Your task to perform on an android device: Toggle the flashlight Image 0: 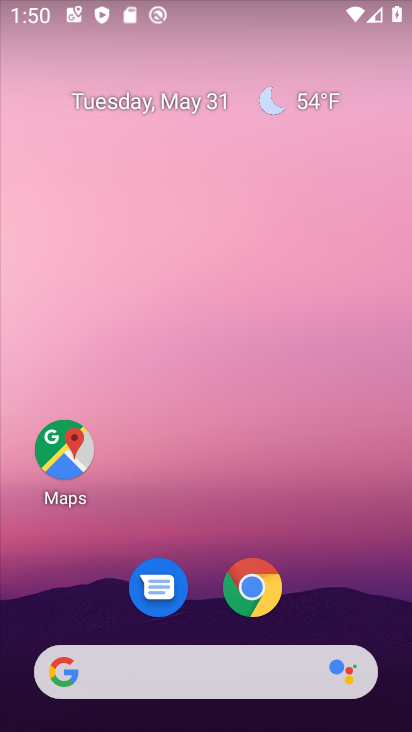
Step 0: click (158, 34)
Your task to perform on an android device: Toggle the flashlight Image 1: 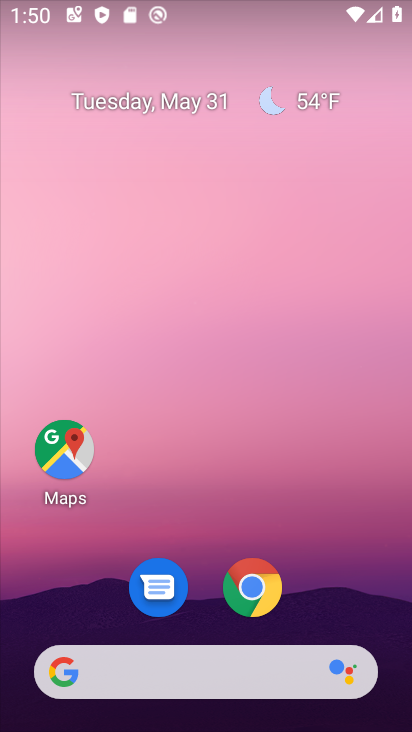
Step 1: drag from (203, 611) to (193, 135)
Your task to perform on an android device: Toggle the flashlight Image 2: 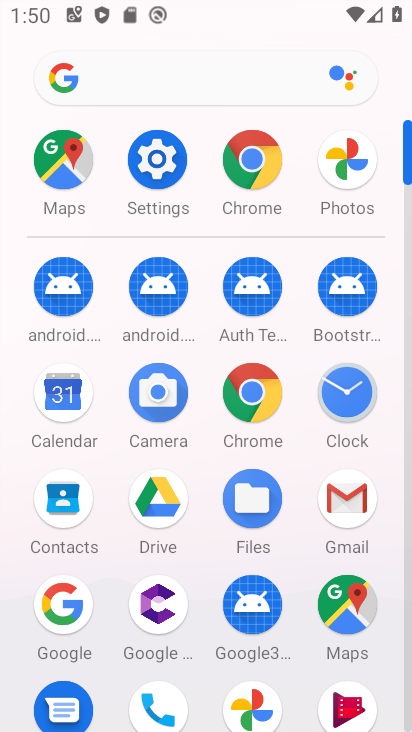
Step 2: click (140, 137)
Your task to perform on an android device: Toggle the flashlight Image 3: 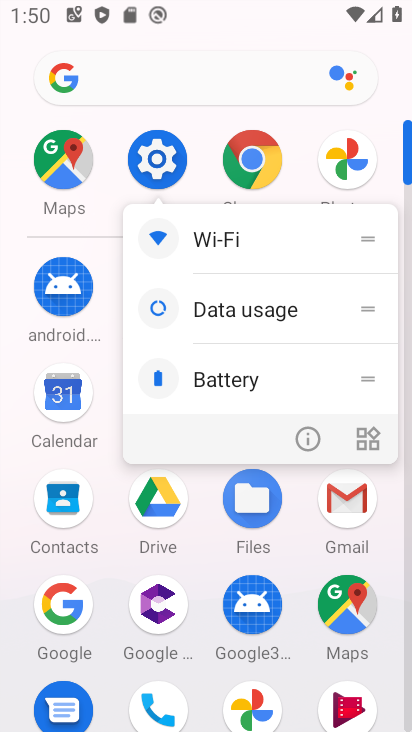
Step 3: click (319, 426)
Your task to perform on an android device: Toggle the flashlight Image 4: 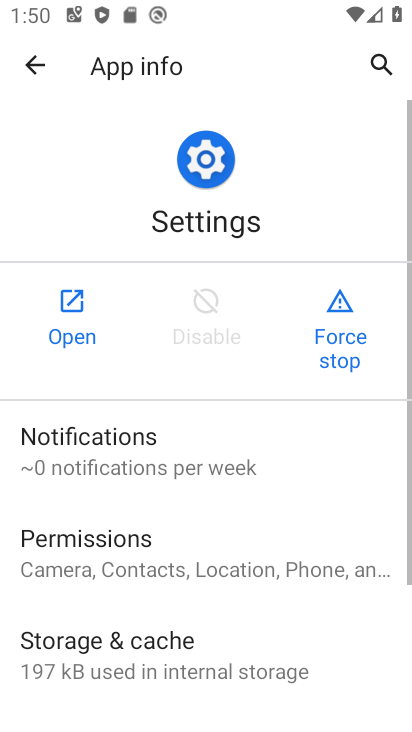
Step 4: click (60, 329)
Your task to perform on an android device: Toggle the flashlight Image 5: 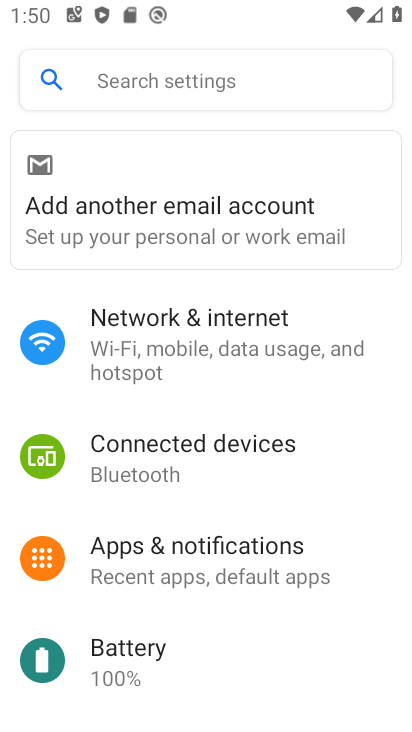
Step 5: click (188, 85)
Your task to perform on an android device: Toggle the flashlight Image 6: 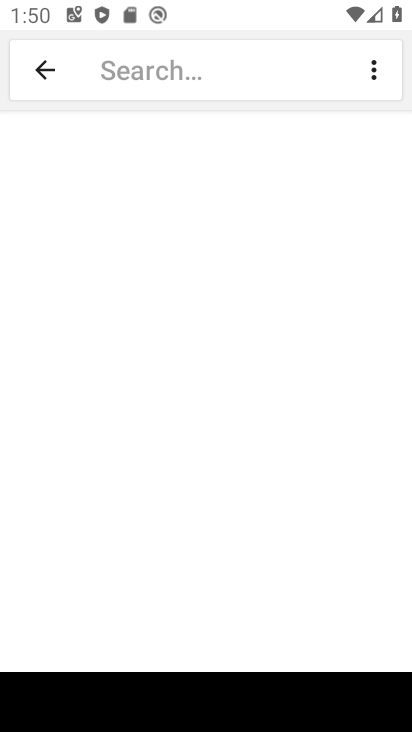
Step 6: click (117, 64)
Your task to perform on an android device: Toggle the flashlight Image 7: 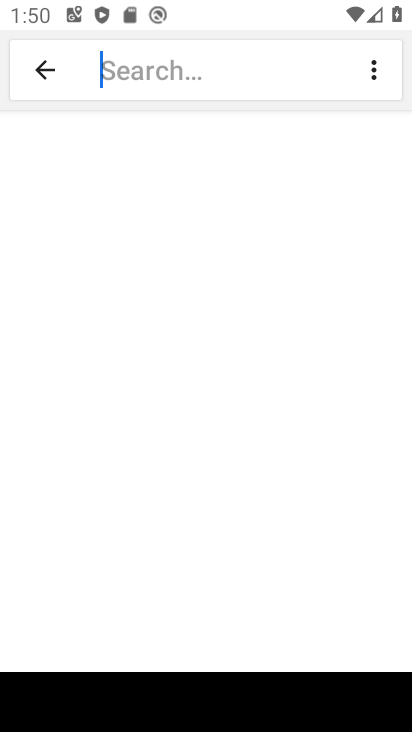
Step 7: click (93, 66)
Your task to perform on an android device: Toggle the flashlight Image 8: 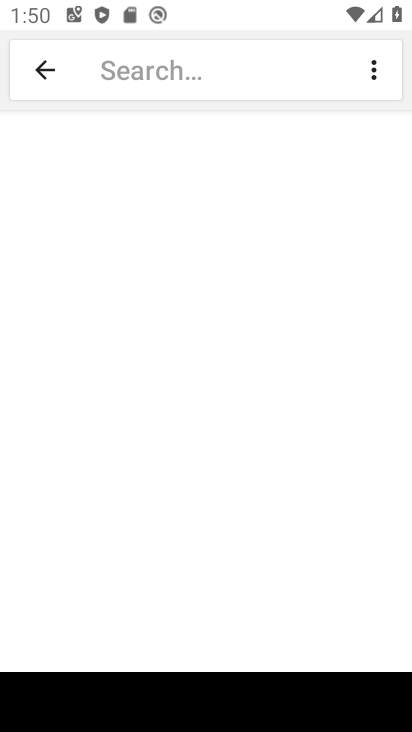
Step 8: click (160, 76)
Your task to perform on an android device: Toggle the flashlight Image 9: 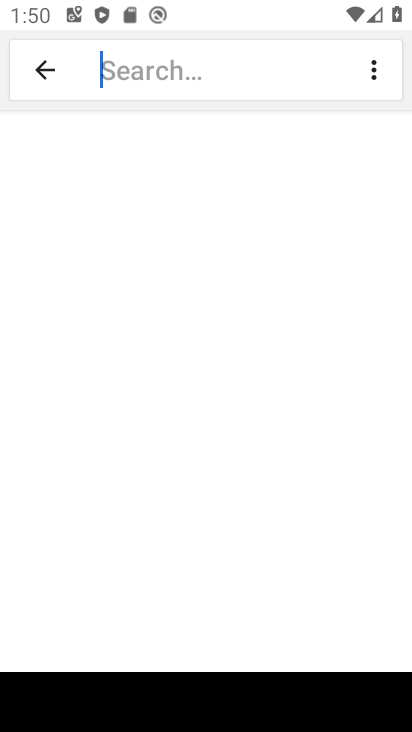
Step 9: type " flashlight"
Your task to perform on an android device: Toggle the flashlight Image 10: 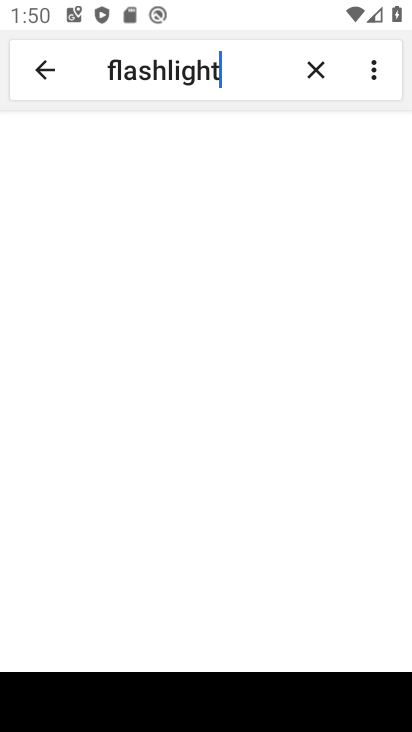
Step 10: type ""
Your task to perform on an android device: Toggle the flashlight Image 11: 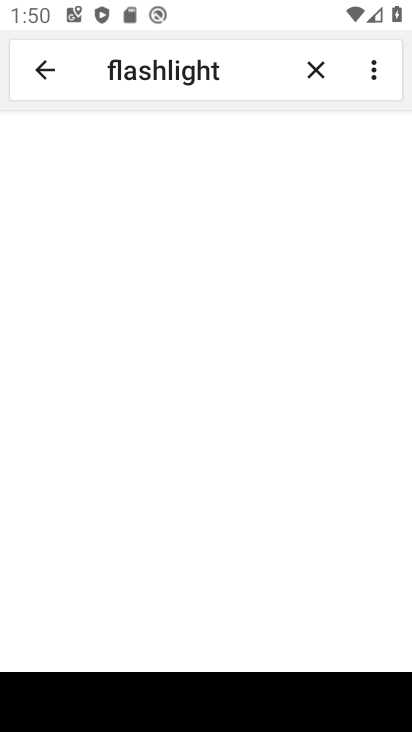
Step 11: click (156, 178)
Your task to perform on an android device: Toggle the flashlight Image 12: 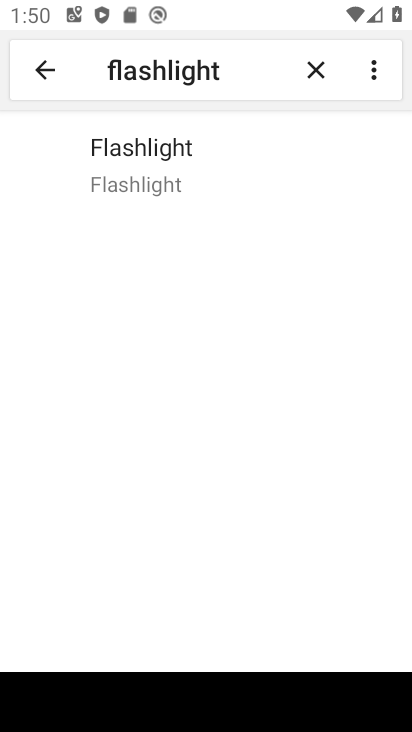
Step 12: click (156, 177)
Your task to perform on an android device: Toggle the flashlight Image 13: 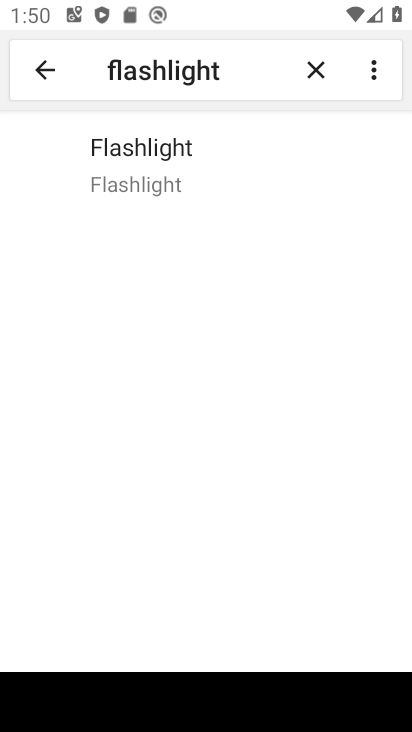
Step 13: task complete